Your task to perform on an android device: Open the map Image 0: 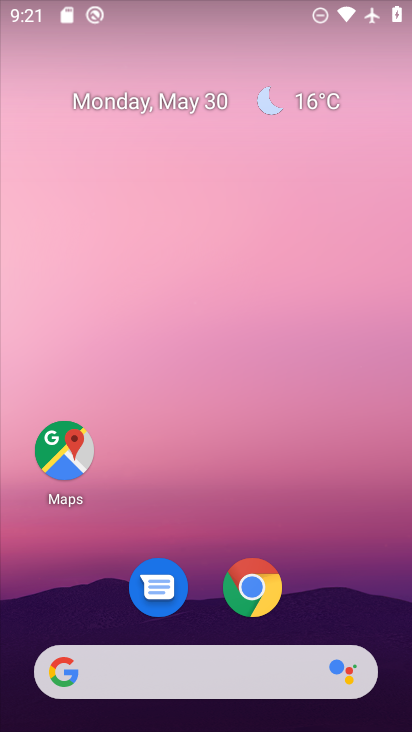
Step 0: press home button
Your task to perform on an android device: Open the map Image 1: 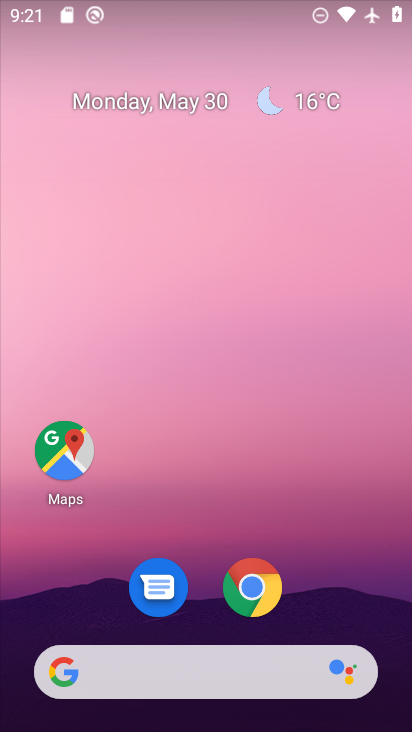
Step 1: click (72, 448)
Your task to perform on an android device: Open the map Image 2: 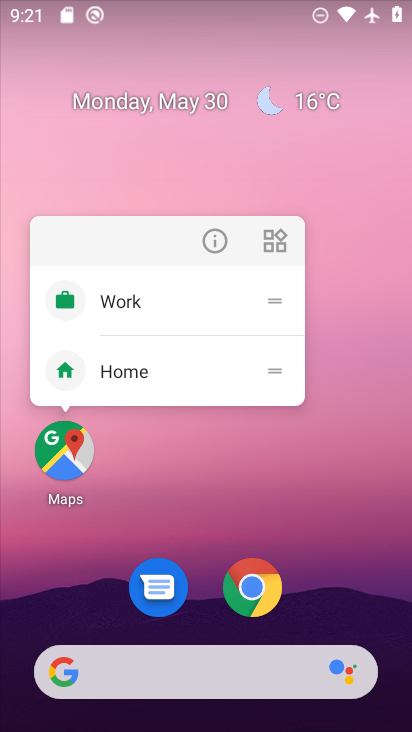
Step 2: click (60, 461)
Your task to perform on an android device: Open the map Image 3: 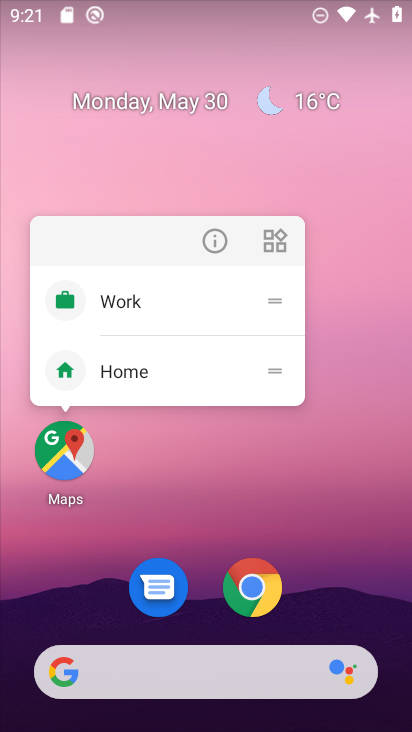
Step 3: click (60, 460)
Your task to perform on an android device: Open the map Image 4: 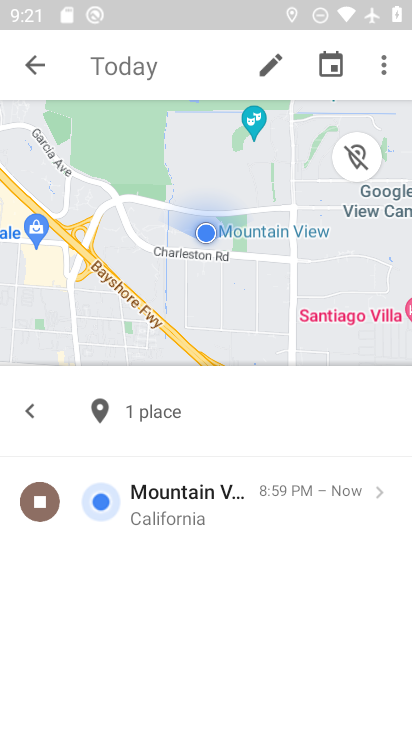
Step 4: click (35, 60)
Your task to perform on an android device: Open the map Image 5: 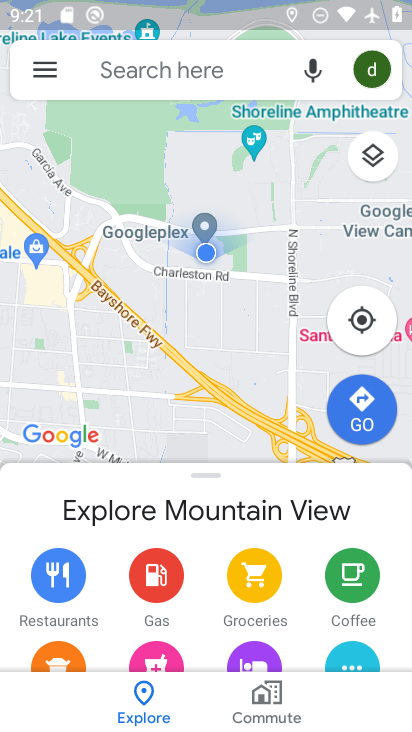
Step 5: task complete